Your task to perform on an android device: turn off smart reply in the gmail app Image 0: 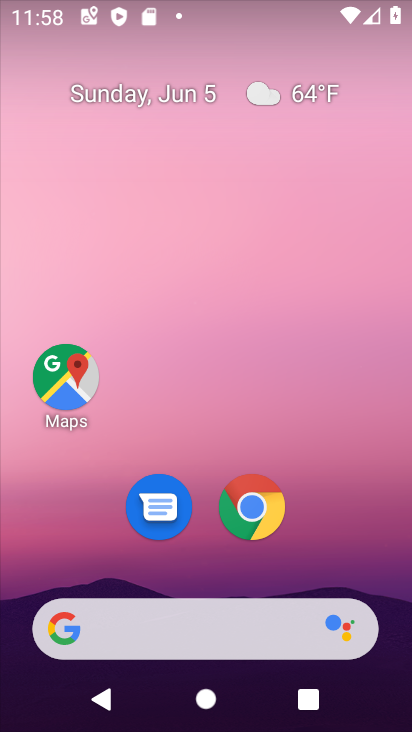
Step 0: drag from (353, 535) to (360, 187)
Your task to perform on an android device: turn off smart reply in the gmail app Image 1: 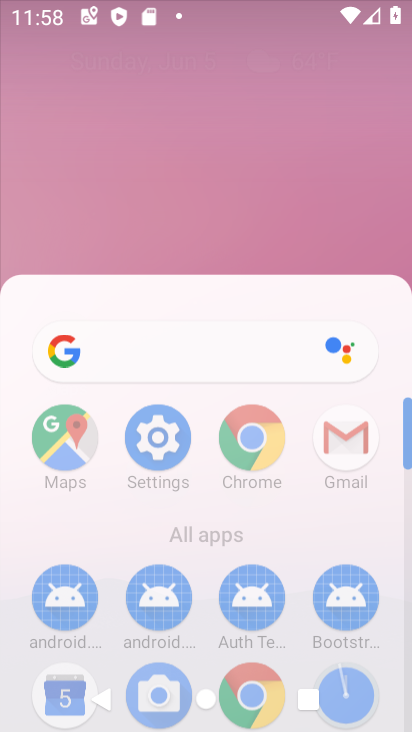
Step 1: click (359, 180)
Your task to perform on an android device: turn off smart reply in the gmail app Image 2: 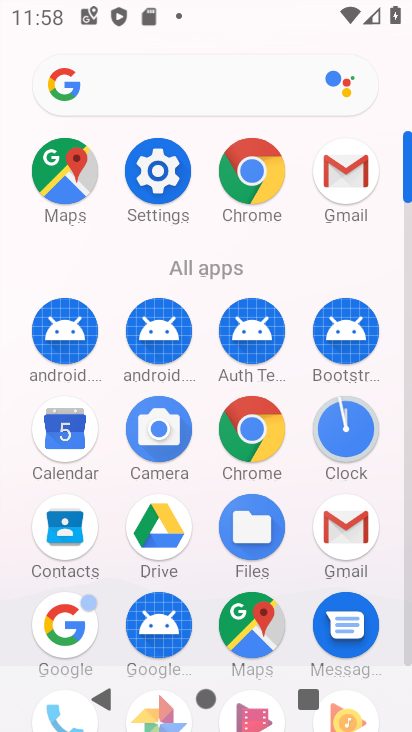
Step 2: click (357, 191)
Your task to perform on an android device: turn off smart reply in the gmail app Image 3: 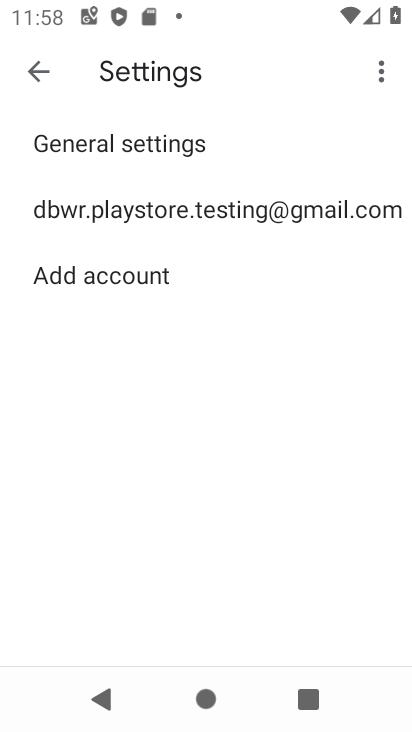
Step 3: click (175, 207)
Your task to perform on an android device: turn off smart reply in the gmail app Image 4: 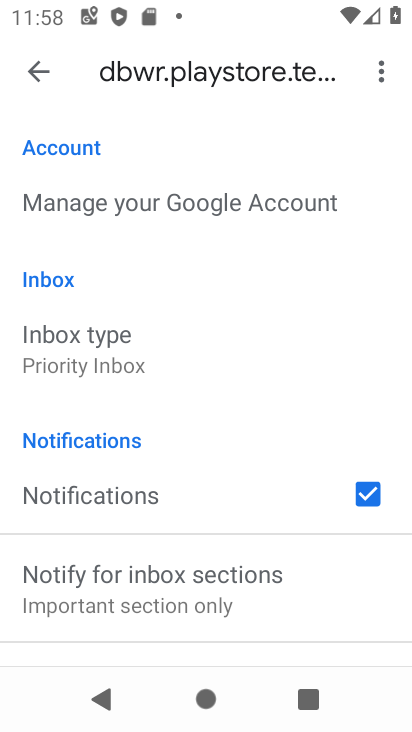
Step 4: drag from (138, 576) to (254, 156)
Your task to perform on an android device: turn off smart reply in the gmail app Image 5: 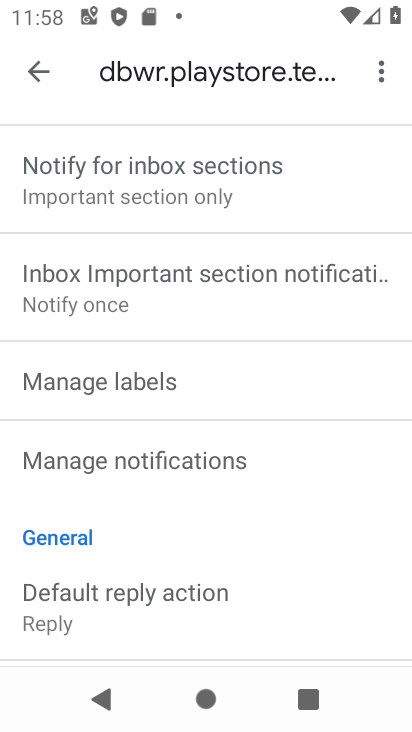
Step 5: drag from (223, 521) to (300, 201)
Your task to perform on an android device: turn off smart reply in the gmail app Image 6: 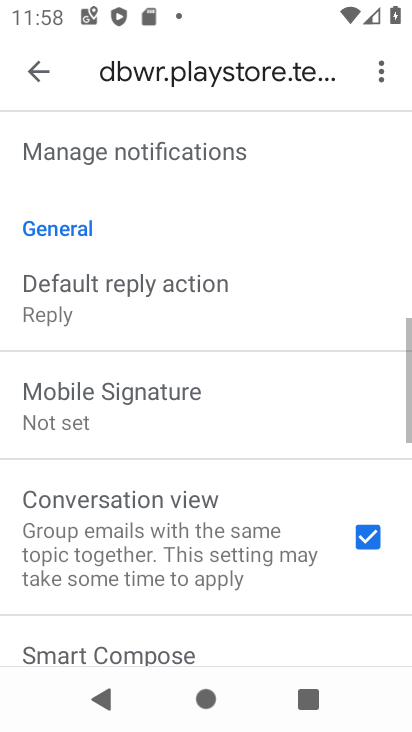
Step 6: drag from (244, 542) to (327, 265)
Your task to perform on an android device: turn off smart reply in the gmail app Image 7: 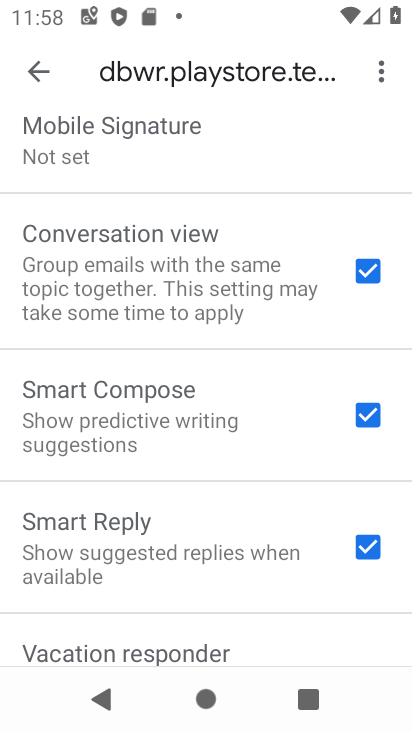
Step 7: click (369, 540)
Your task to perform on an android device: turn off smart reply in the gmail app Image 8: 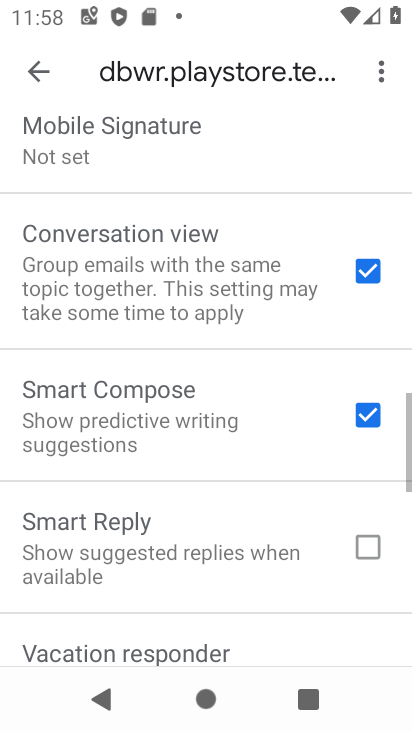
Step 8: task complete